Your task to perform on an android device: turn off smart reply in the gmail app Image 0: 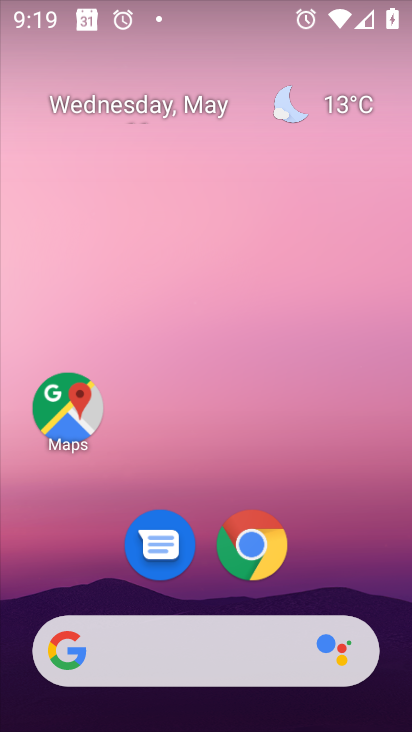
Step 0: drag from (326, 591) to (249, 22)
Your task to perform on an android device: turn off smart reply in the gmail app Image 1: 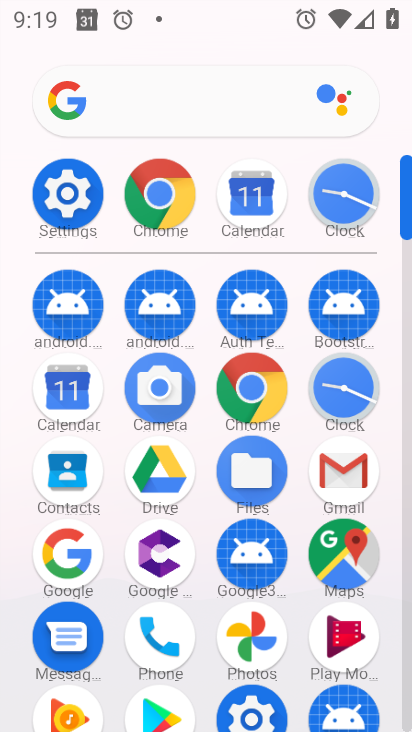
Step 1: click (344, 467)
Your task to perform on an android device: turn off smart reply in the gmail app Image 2: 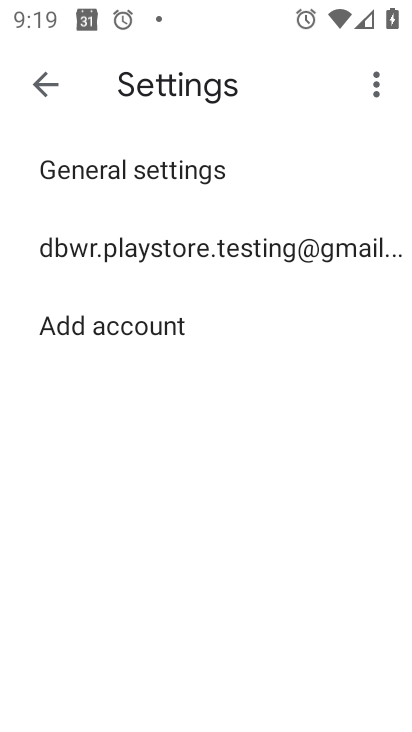
Step 2: click (40, 81)
Your task to perform on an android device: turn off smart reply in the gmail app Image 3: 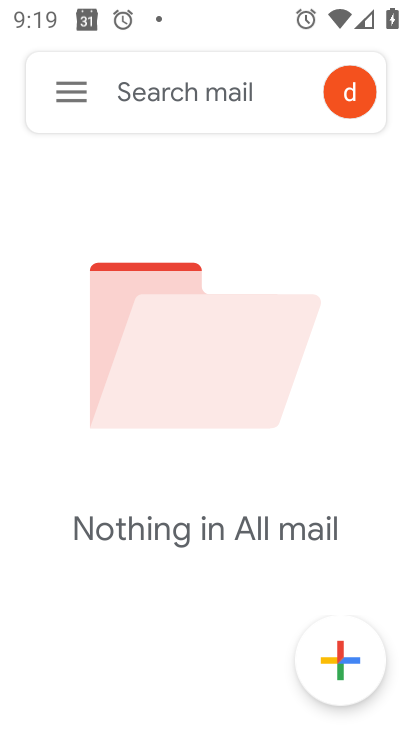
Step 3: click (85, 104)
Your task to perform on an android device: turn off smart reply in the gmail app Image 4: 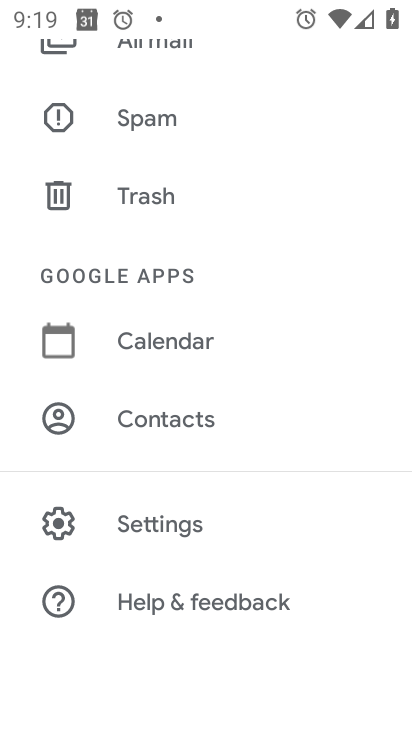
Step 4: click (156, 519)
Your task to perform on an android device: turn off smart reply in the gmail app Image 5: 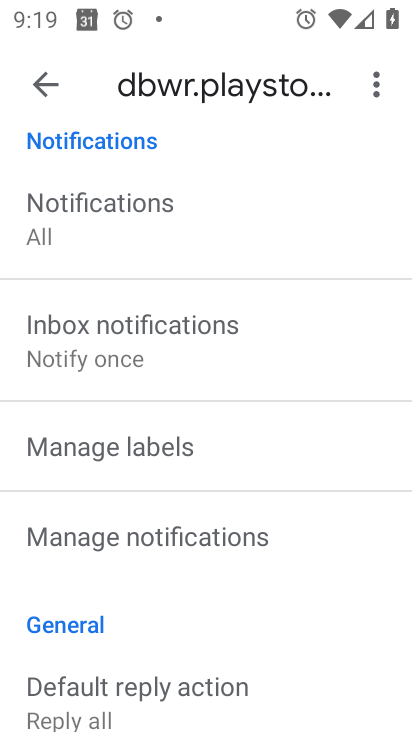
Step 5: drag from (296, 592) to (269, 193)
Your task to perform on an android device: turn off smart reply in the gmail app Image 6: 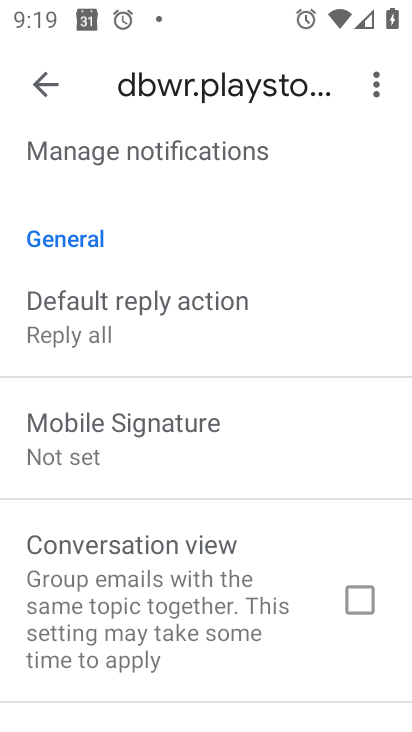
Step 6: drag from (286, 530) to (301, 134)
Your task to perform on an android device: turn off smart reply in the gmail app Image 7: 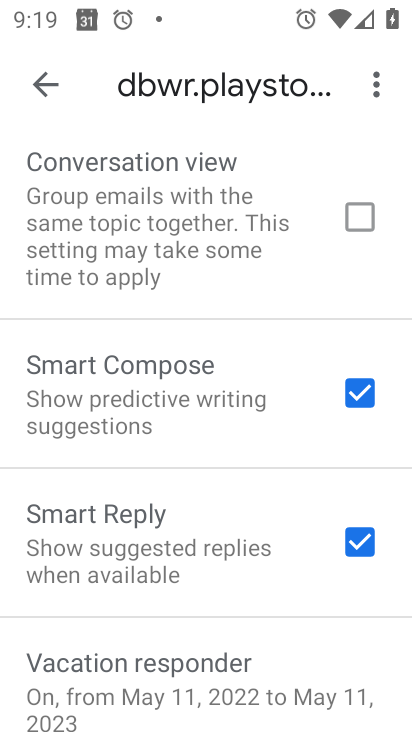
Step 7: drag from (192, 595) to (231, 297)
Your task to perform on an android device: turn off smart reply in the gmail app Image 8: 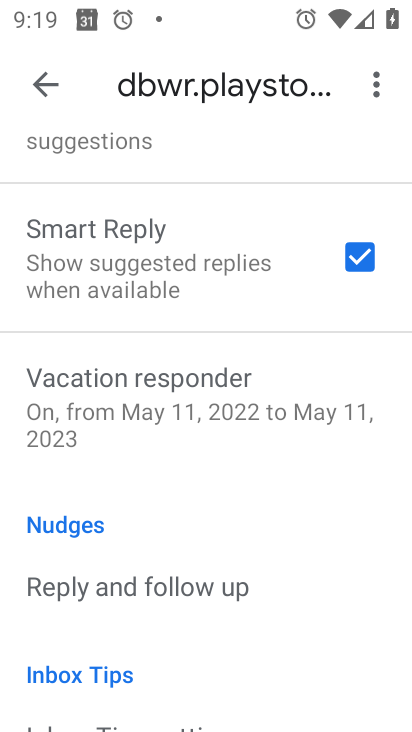
Step 8: click (354, 251)
Your task to perform on an android device: turn off smart reply in the gmail app Image 9: 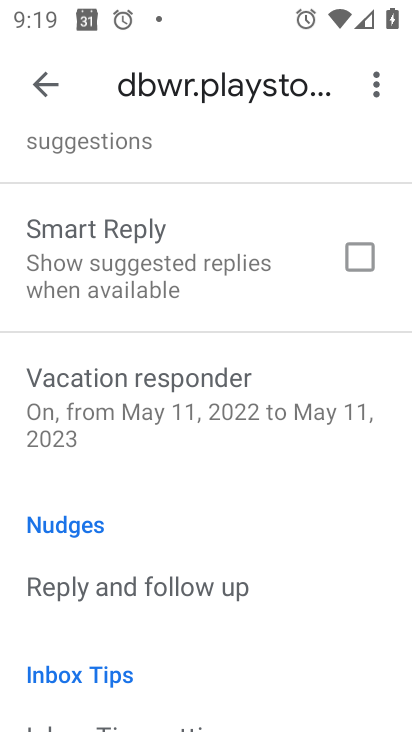
Step 9: task complete